Your task to perform on an android device: check battery use Image 0: 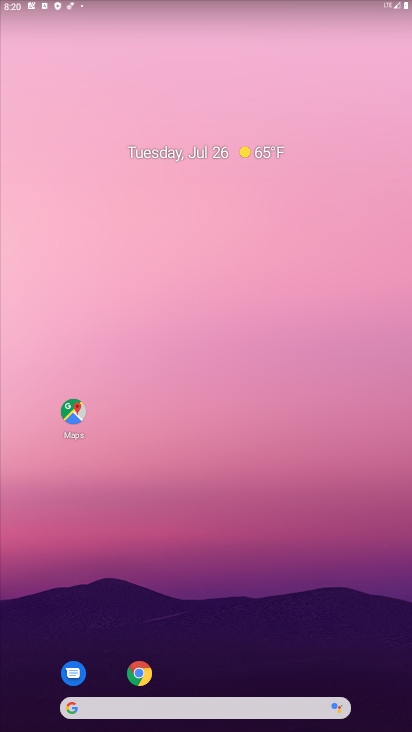
Step 0: drag from (211, 659) to (320, 47)
Your task to perform on an android device: check battery use Image 1: 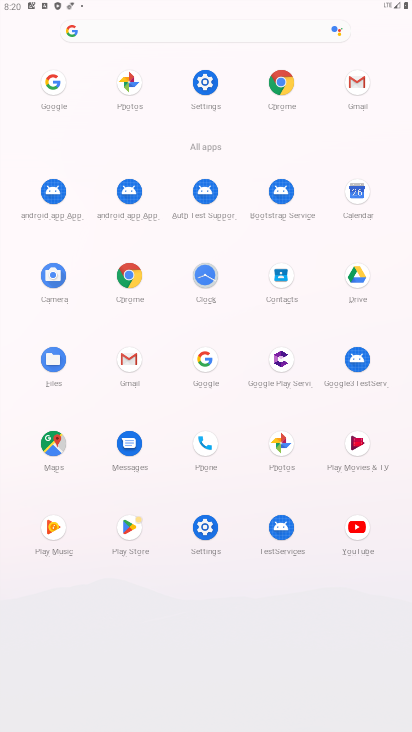
Step 1: click (205, 103)
Your task to perform on an android device: check battery use Image 2: 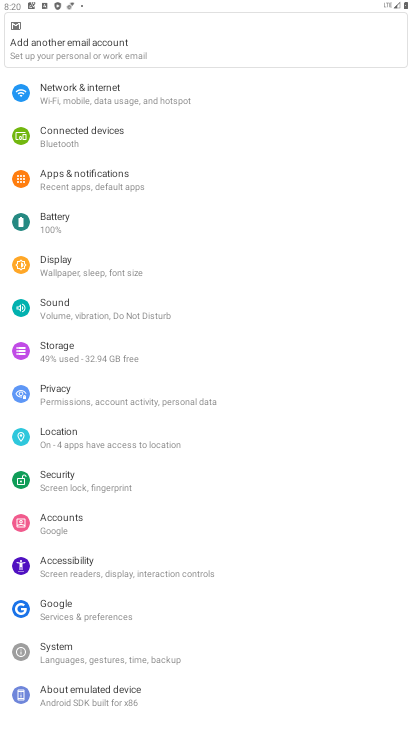
Step 2: click (85, 226)
Your task to perform on an android device: check battery use Image 3: 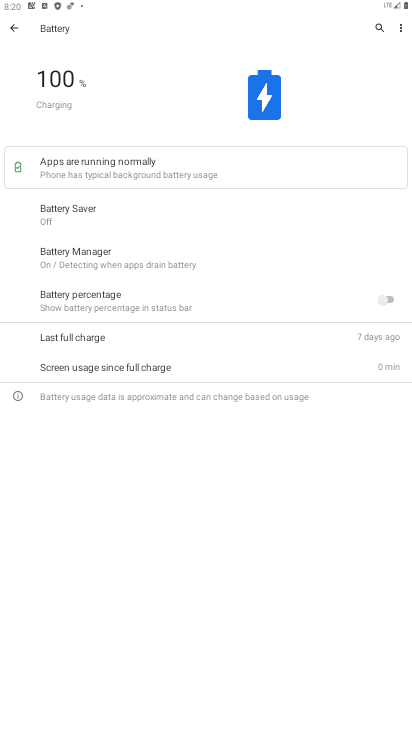
Step 3: click (396, 18)
Your task to perform on an android device: check battery use Image 4: 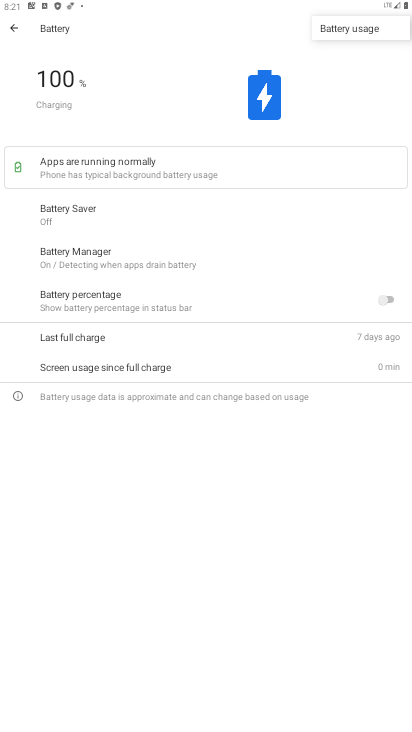
Step 4: click (345, 29)
Your task to perform on an android device: check battery use Image 5: 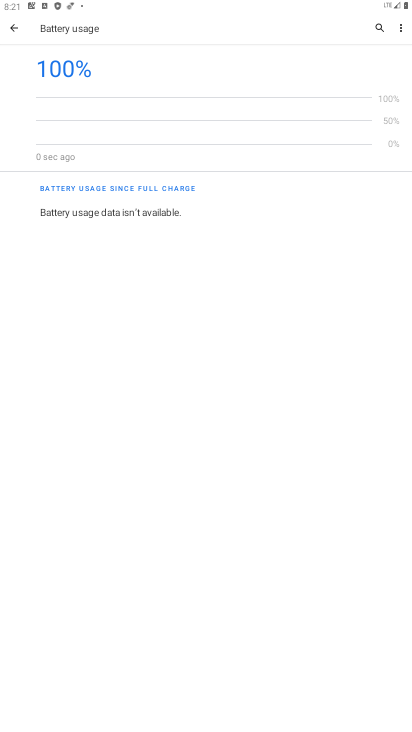
Step 5: task complete